Your task to perform on an android device: add a label to a message in the gmail app Image 0: 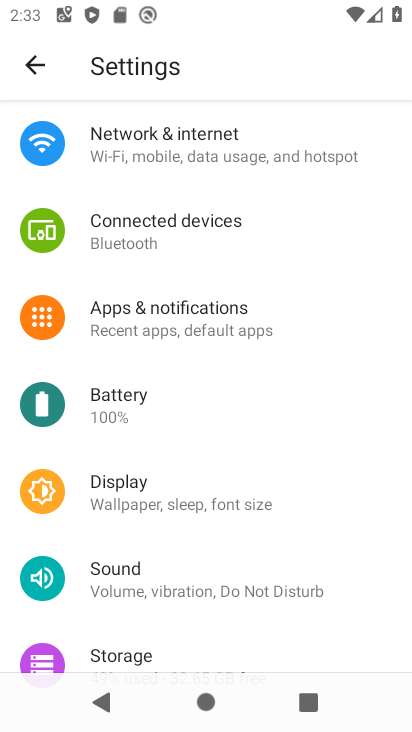
Step 0: press home button
Your task to perform on an android device: add a label to a message in the gmail app Image 1: 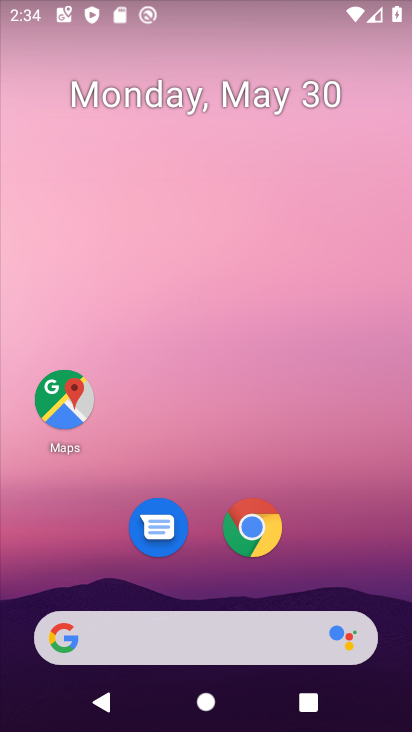
Step 1: drag from (340, 539) to (303, 76)
Your task to perform on an android device: add a label to a message in the gmail app Image 2: 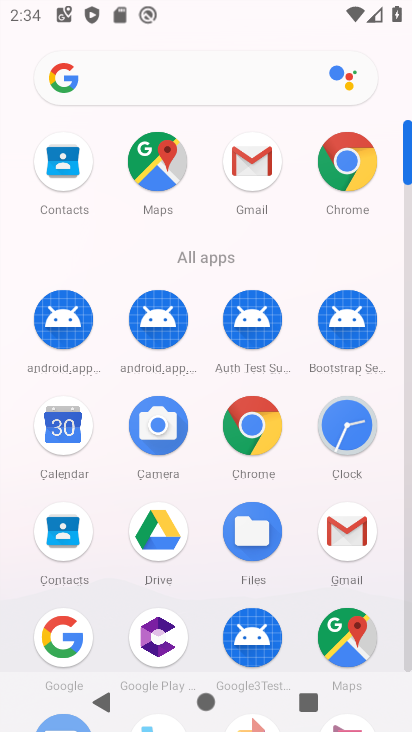
Step 2: click (244, 152)
Your task to perform on an android device: add a label to a message in the gmail app Image 3: 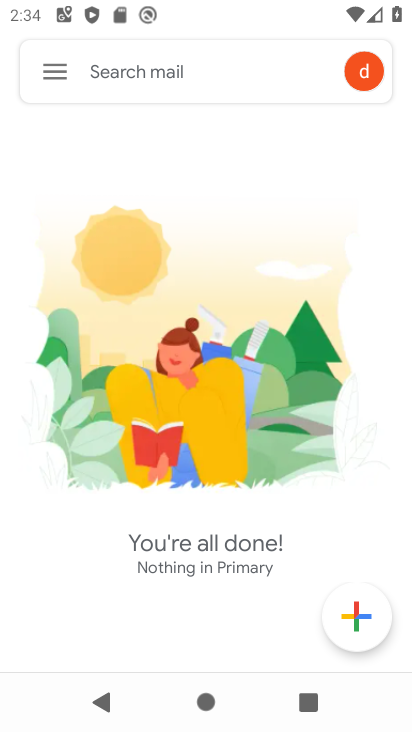
Step 3: task complete